Your task to perform on an android device: turn pop-ups off in chrome Image 0: 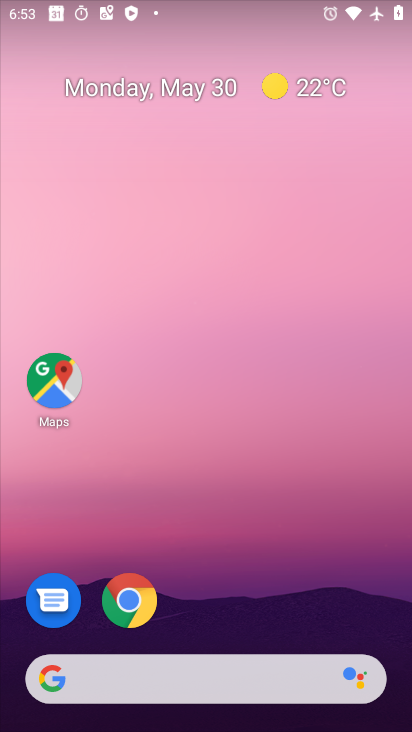
Step 0: press home button
Your task to perform on an android device: turn pop-ups off in chrome Image 1: 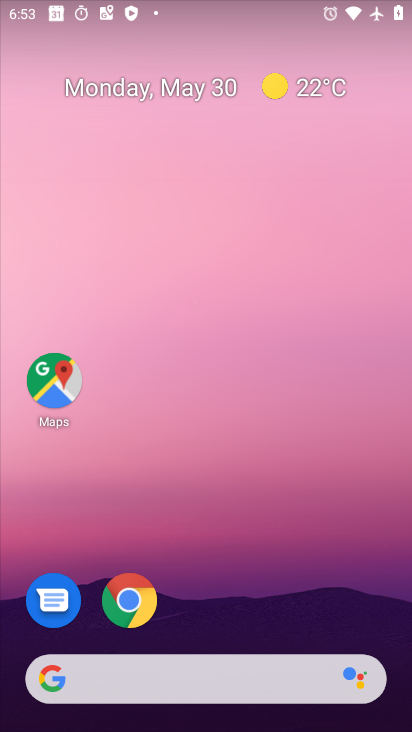
Step 1: click (135, 601)
Your task to perform on an android device: turn pop-ups off in chrome Image 2: 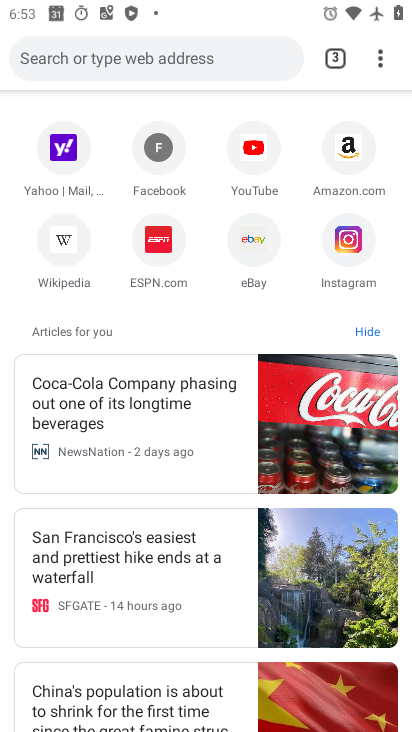
Step 2: drag from (379, 54) to (151, 490)
Your task to perform on an android device: turn pop-ups off in chrome Image 3: 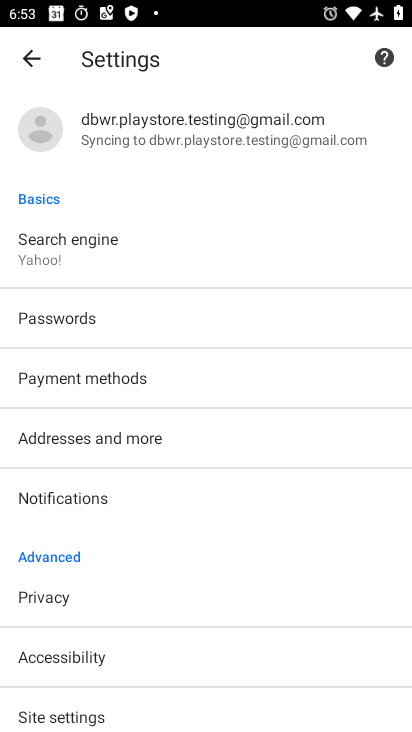
Step 3: click (68, 713)
Your task to perform on an android device: turn pop-ups off in chrome Image 4: 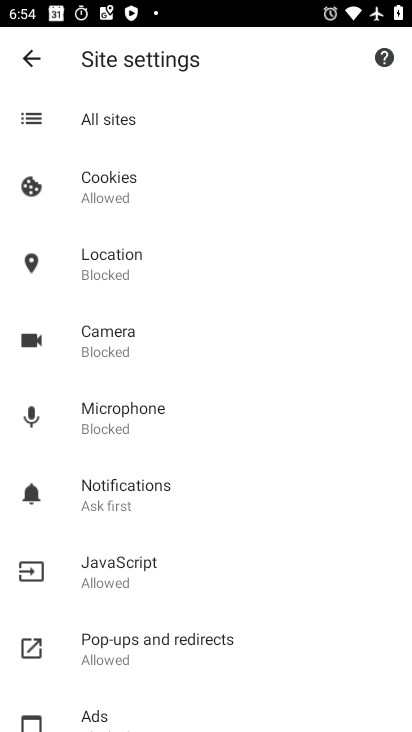
Step 4: click (154, 647)
Your task to perform on an android device: turn pop-ups off in chrome Image 5: 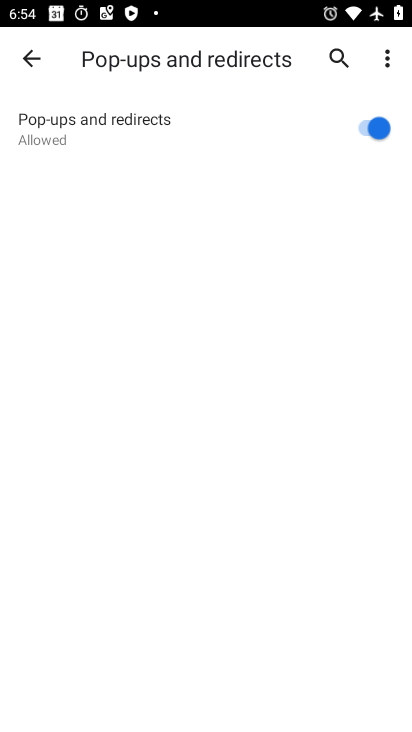
Step 5: click (382, 120)
Your task to perform on an android device: turn pop-ups off in chrome Image 6: 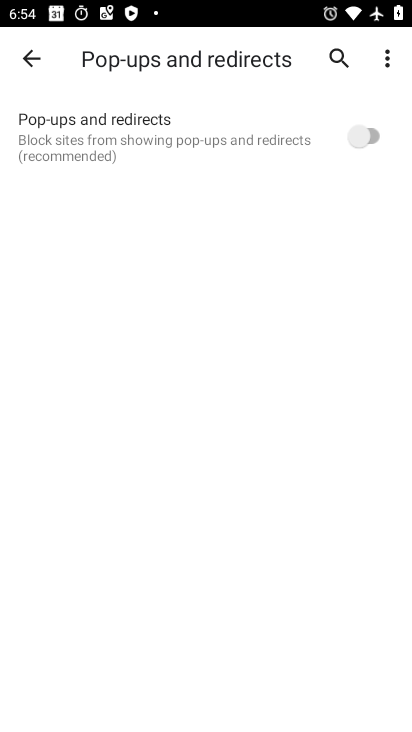
Step 6: task complete